Your task to perform on an android device: turn on translation in the chrome app Image 0: 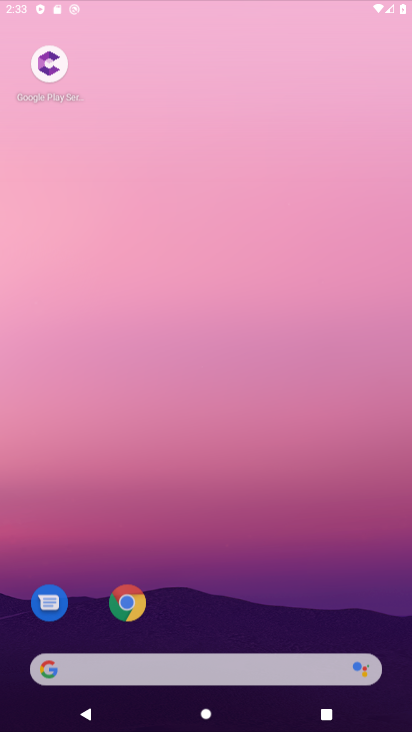
Step 0: click (171, 443)
Your task to perform on an android device: turn on translation in the chrome app Image 1: 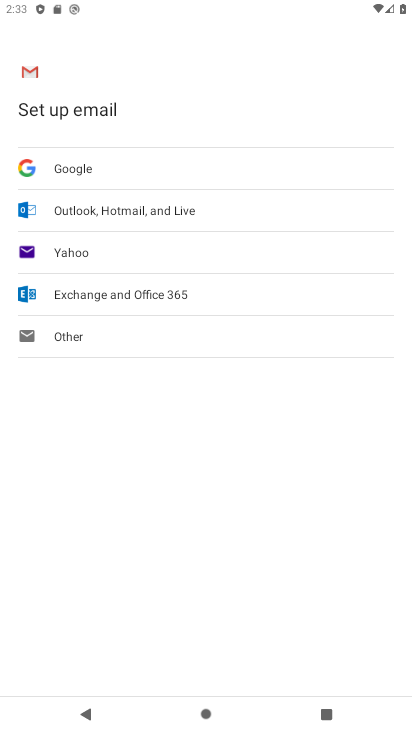
Step 1: press home button
Your task to perform on an android device: turn on translation in the chrome app Image 2: 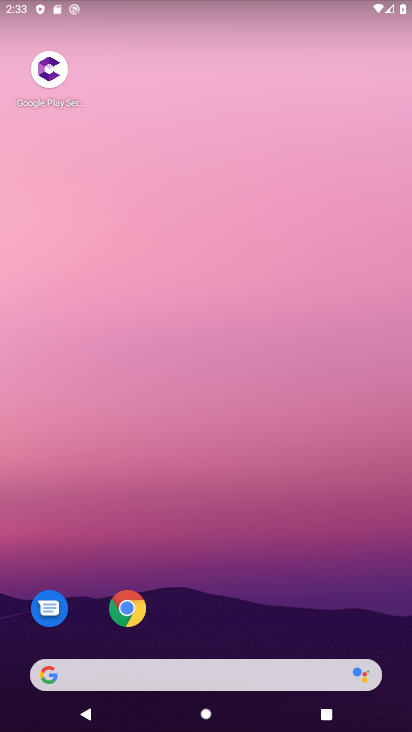
Step 2: drag from (211, 602) to (230, 5)
Your task to perform on an android device: turn on translation in the chrome app Image 3: 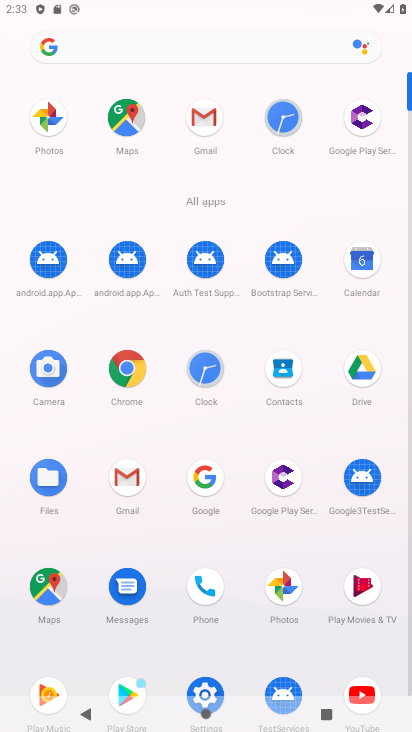
Step 3: click (123, 394)
Your task to perform on an android device: turn on translation in the chrome app Image 4: 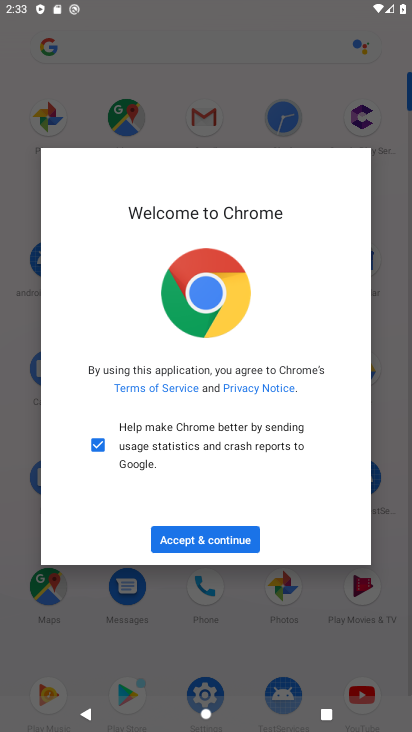
Step 4: click (244, 543)
Your task to perform on an android device: turn on translation in the chrome app Image 5: 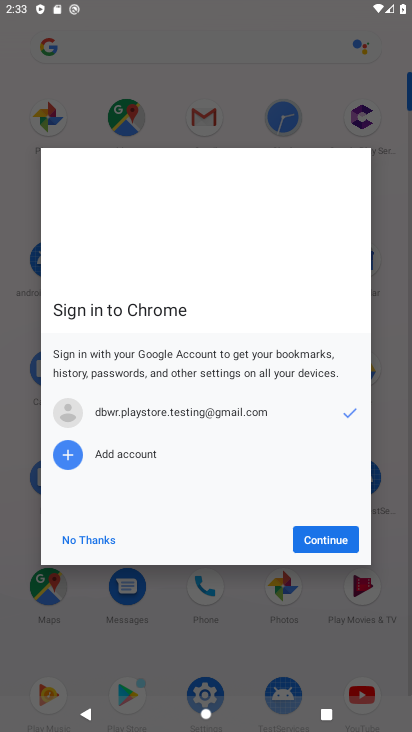
Step 5: click (346, 529)
Your task to perform on an android device: turn on translation in the chrome app Image 6: 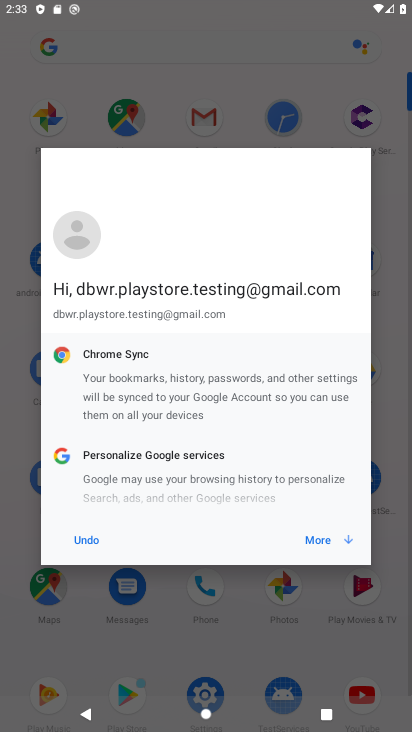
Step 6: click (329, 547)
Your task to perform on an android device: turn on translation in the chrome app Image 7: 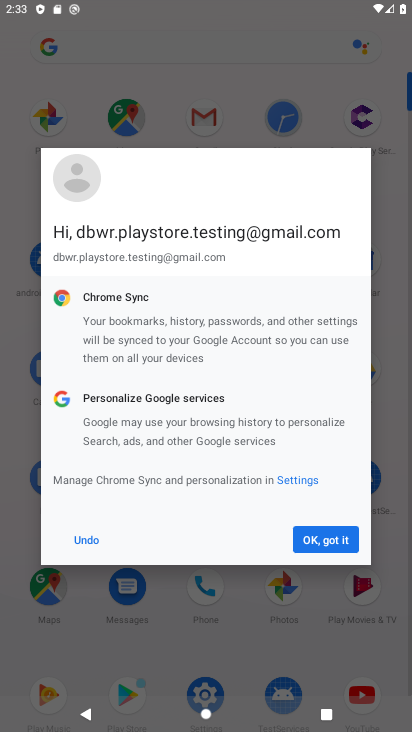
Step 7: click (326, 544)
Your task to perform on an android device: turn on translation in the chrome app Image 8: 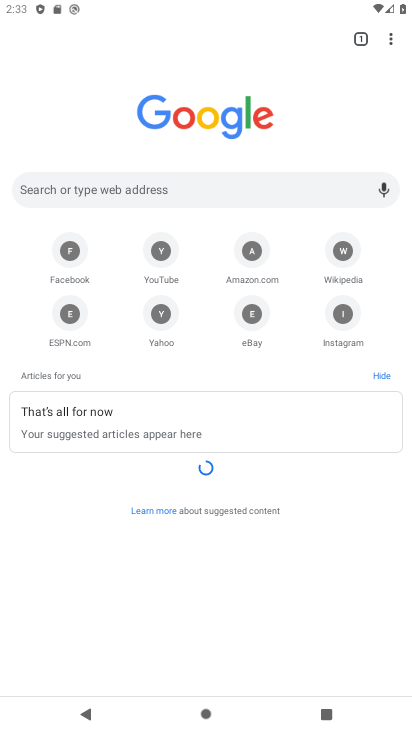
Step 8: click (389, 46)
Your task to perform on an android device: turn on translation in the chrome app Image 9: 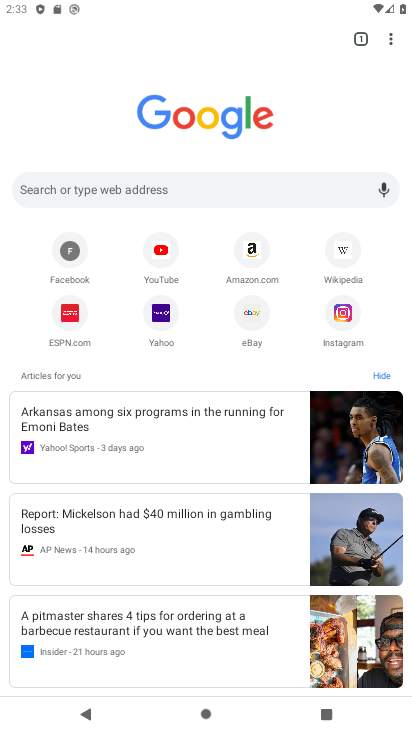
Step 9: click (396, 43)
Your task to perform on an android device: turn on translation in the chrome app Image 10: 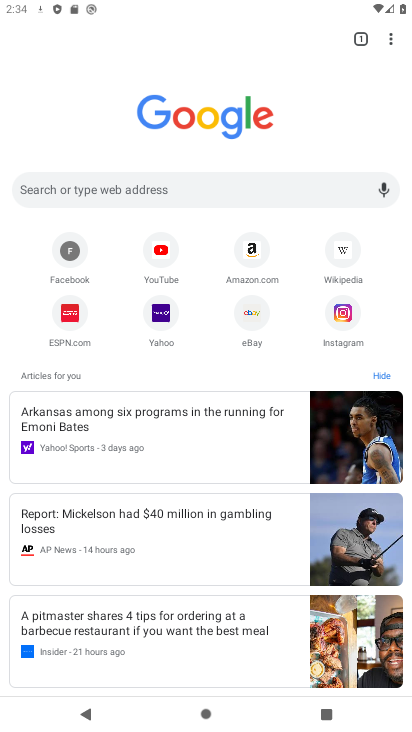
Step 10: click (385, 41)
Your task to perform on an android device: turn on translation in the chrome app Image 11: 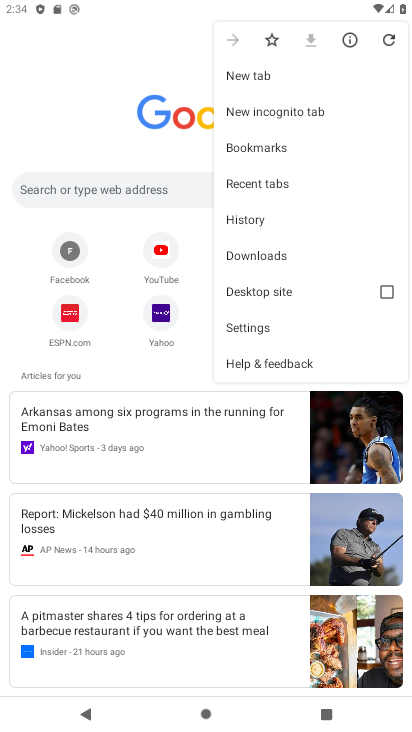
Step 11: click (277, 334)
Your task to perform on an android device: turn on translation in the chrome app Image 12: 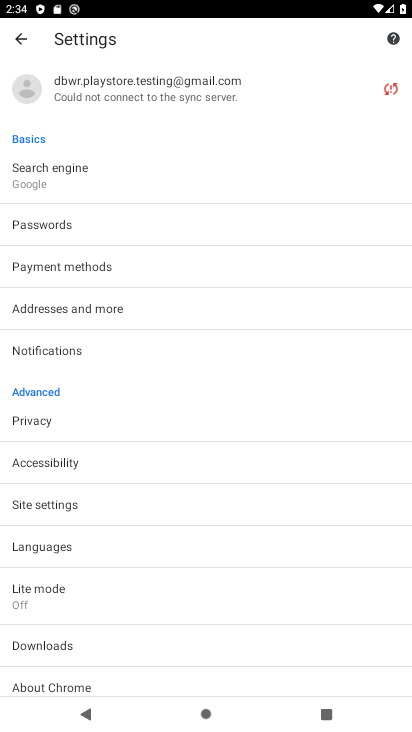
Step 12: click (80, 544)
Your task to perform on an android device: turn on translation in the chrome app Image 13: 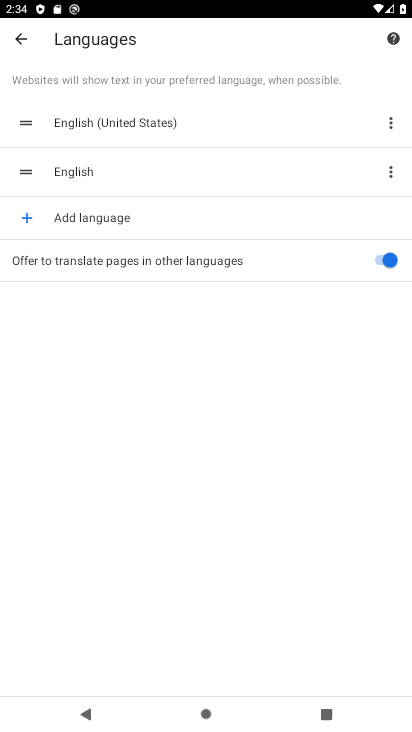
Step 13: task complete